Your task to perform on an android device: turn on data saver in the chrome app Image 0: 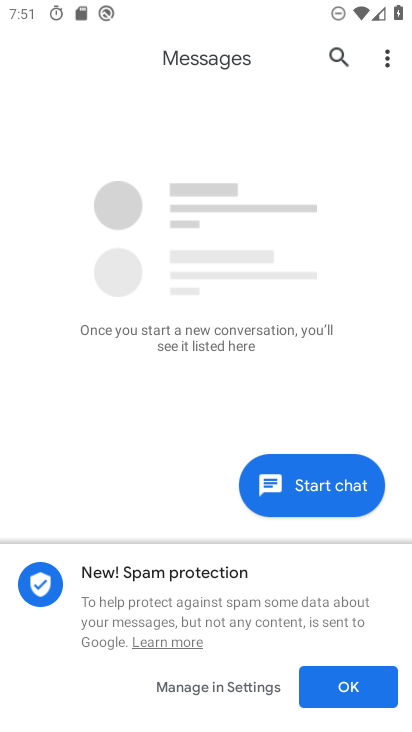
Step 0: press home button
Your task to perform on an android device: turn on data saver in the chrome app Image 1: 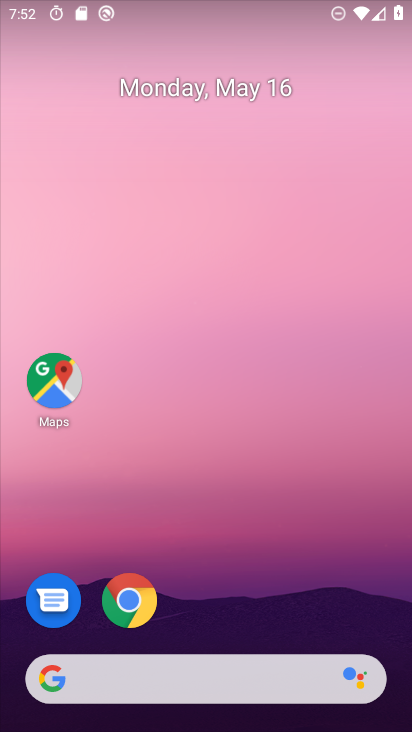
Step 1: click (134, 611)
Your task to perform on an android device: turn on data saver in the chrome app Image 2: 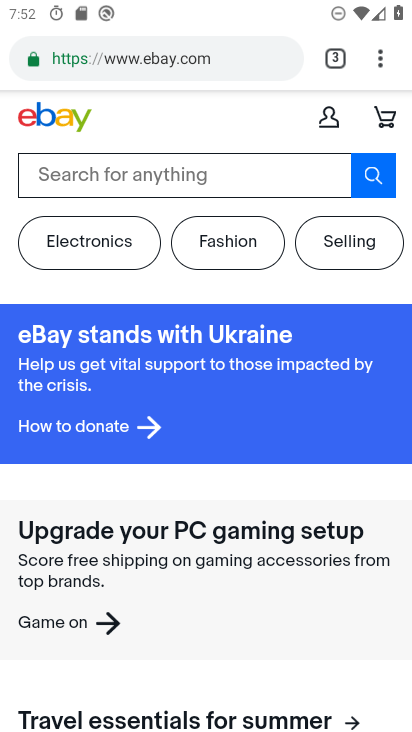
Step 2: drag from (380, 63) to (131, 647)
Your task to perform on an android device: turn on data saver in the chrome app Image 3: 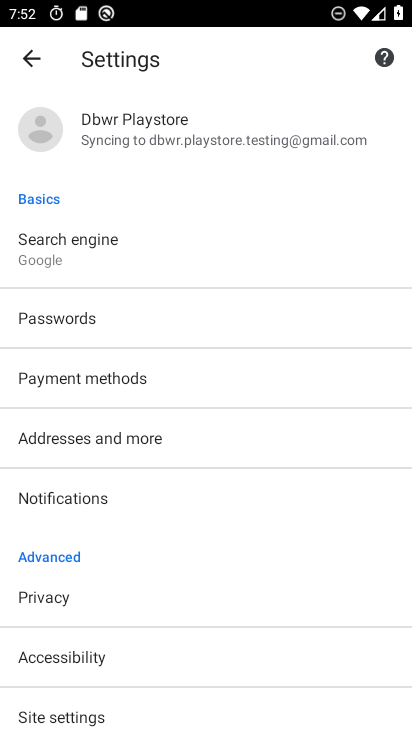
Step 3: drag from (133, 636) to (274, 251)
Your task to perform on an android device: turn on data saver in the chrome app Image 4: 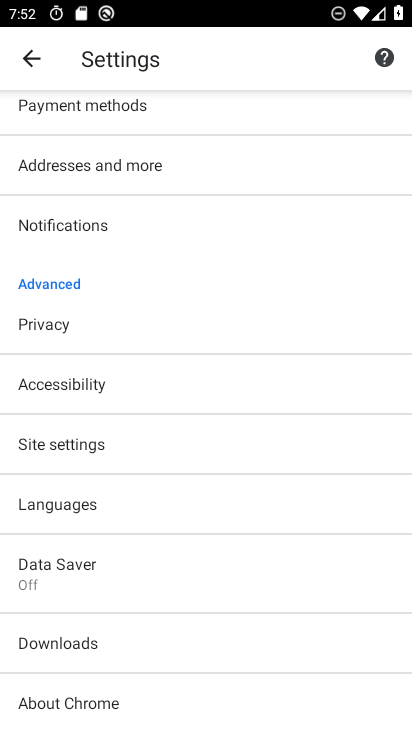
Step 4: click (114, 579)
Your task to perform on an android device: turn on data saver in the chrome app Image 5: 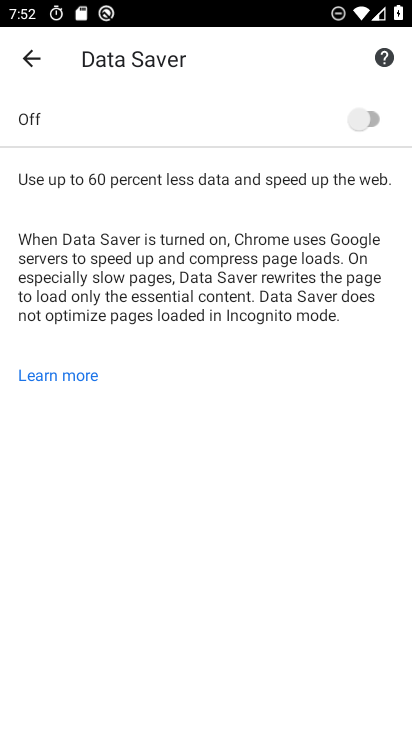
Step 5: click (368, 107)
Your task to perform on an android device: turn on data saver in the chrome app Image 6: 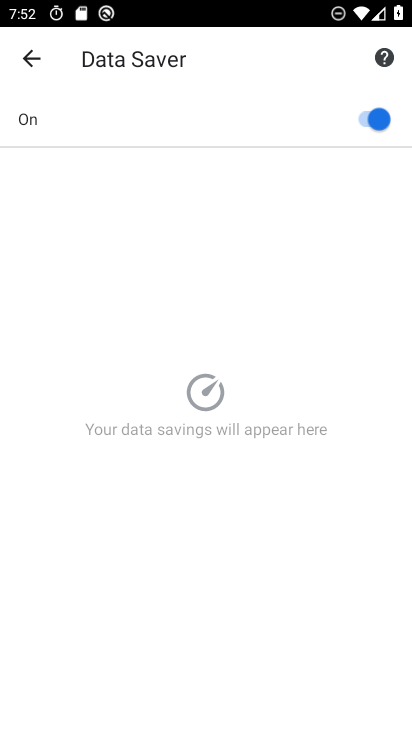
Step 6: task complete